Your task to perform on an android device: change alarm snooze length Image 0: 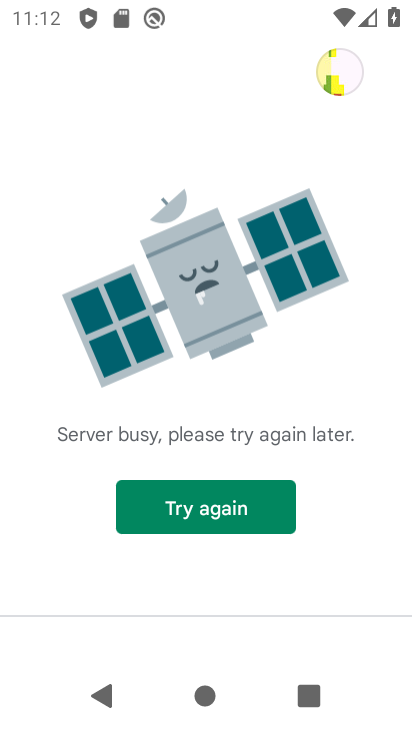
Step 0: press home button
Your task to perform on an android device: change alarm snooze length Image 1: 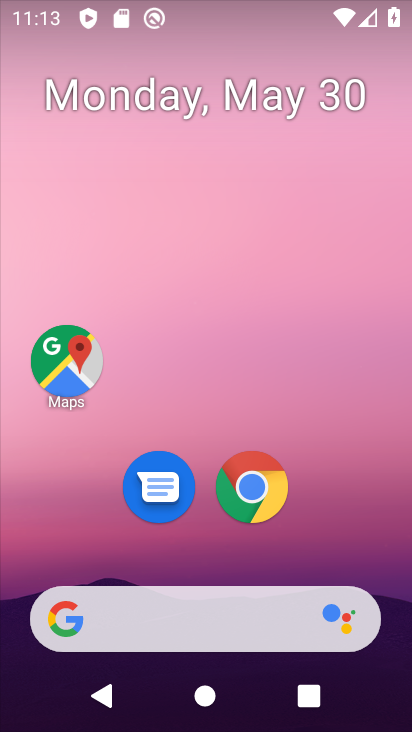
Step 1: drag from (330, 544) to (224, 158)
Your task to perform on an android device: change alarm snooze length Image 2: 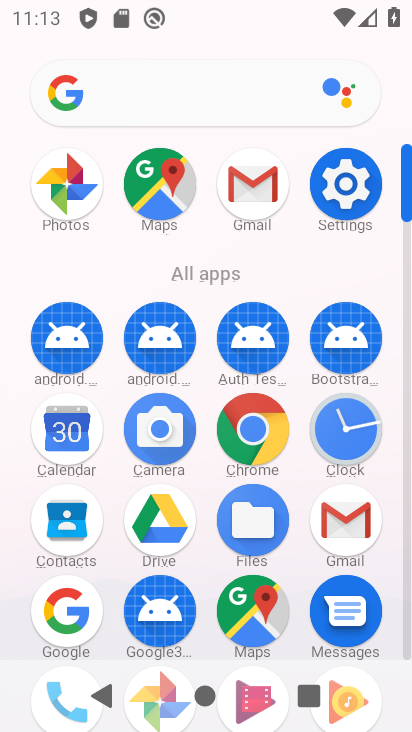
Step 2: click (339, 425)
Your task to perform on an android device: change alarm snooze length Image 3: 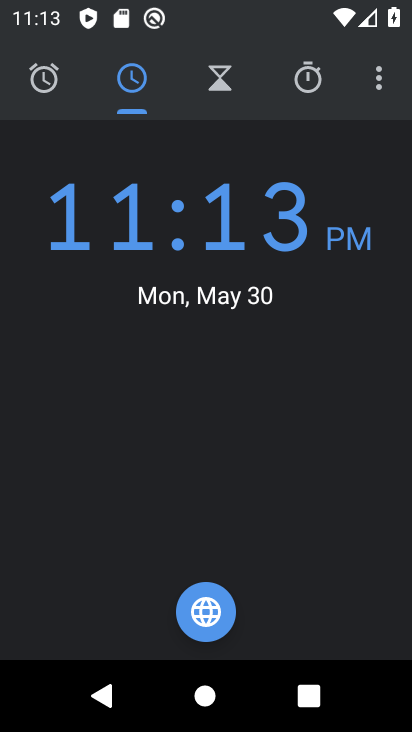
Step 3: click (376, 80)
Your task to perform on an android device: change alarm snooze length Image 4: 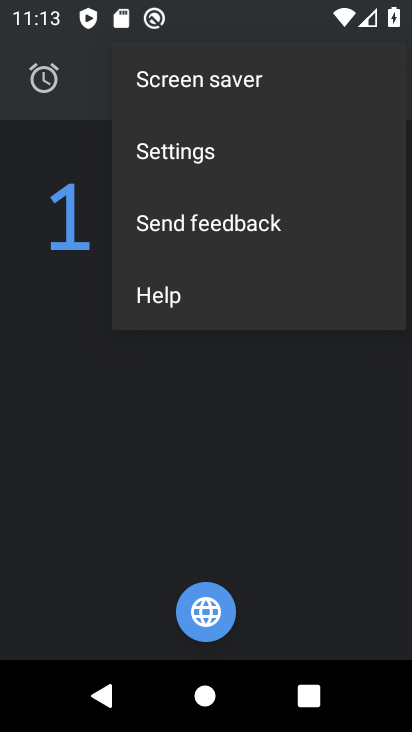
Step 4: click (207, 148)
Your task to perform on an android device: change alarm snooze length Image 5: 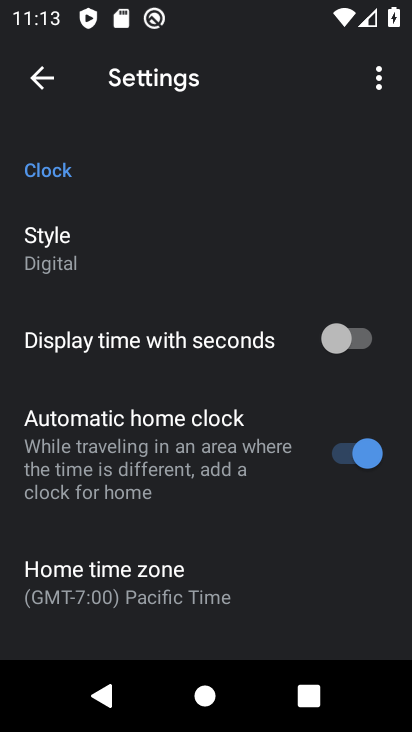
Step 5: drag from (234, 558) to (215, 265)
Your task to perform on an android device: change alarm snooze length Image 6: 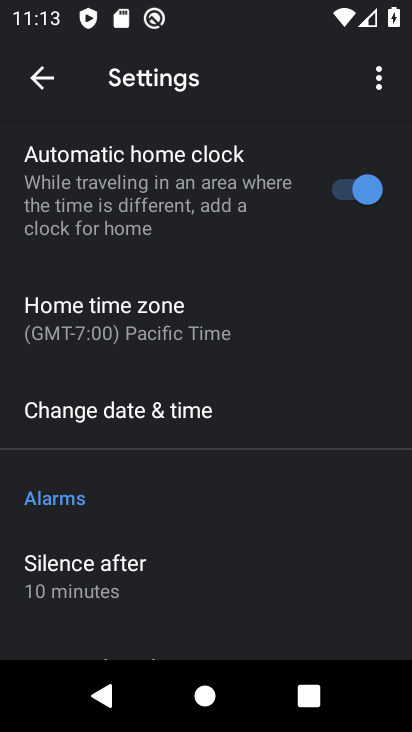
Step 6: drag from (186, 515) to (159, 147)
Your task to perform on an android device: change alarm snooze length Image 7: 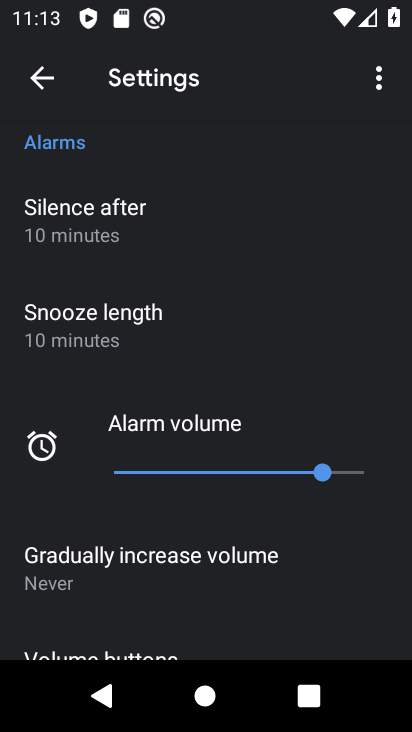
Step 7: drag from (160, 507) to (143, 145)
Your task to perform on an android device: change alarm snooze length Image 8: 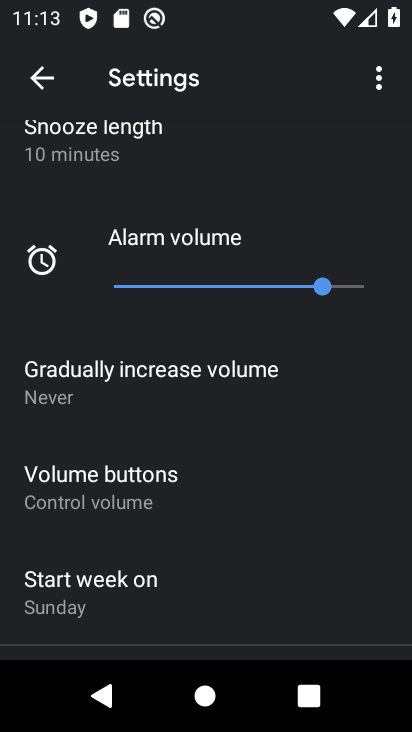
Step 8: click (116, 142)
Your task to perform on an android device: change alarm snooze length Image 9: 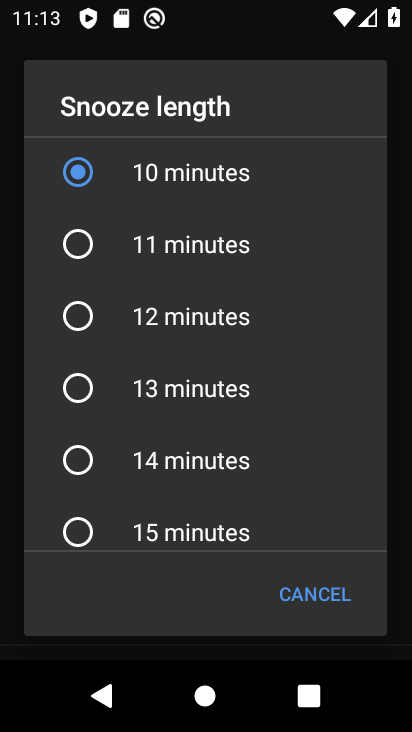
Step 9: click (74, 251)
Your task to perform on an android device: change alarm snooze length Image 10: 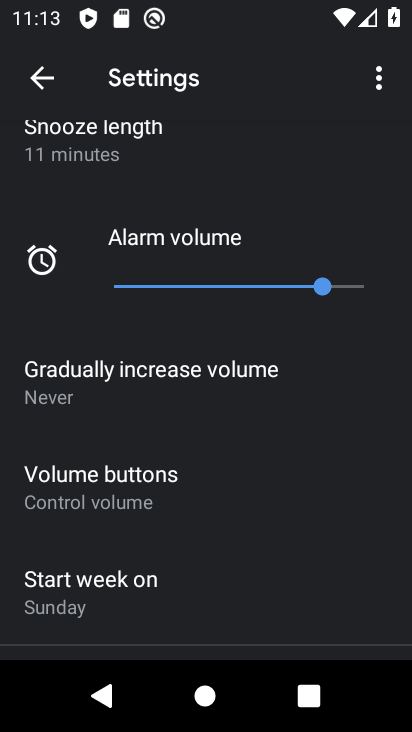
Step 10: task complete